Your task to perform on an android device: see tabs open on other devices in the chrome app Image 0: 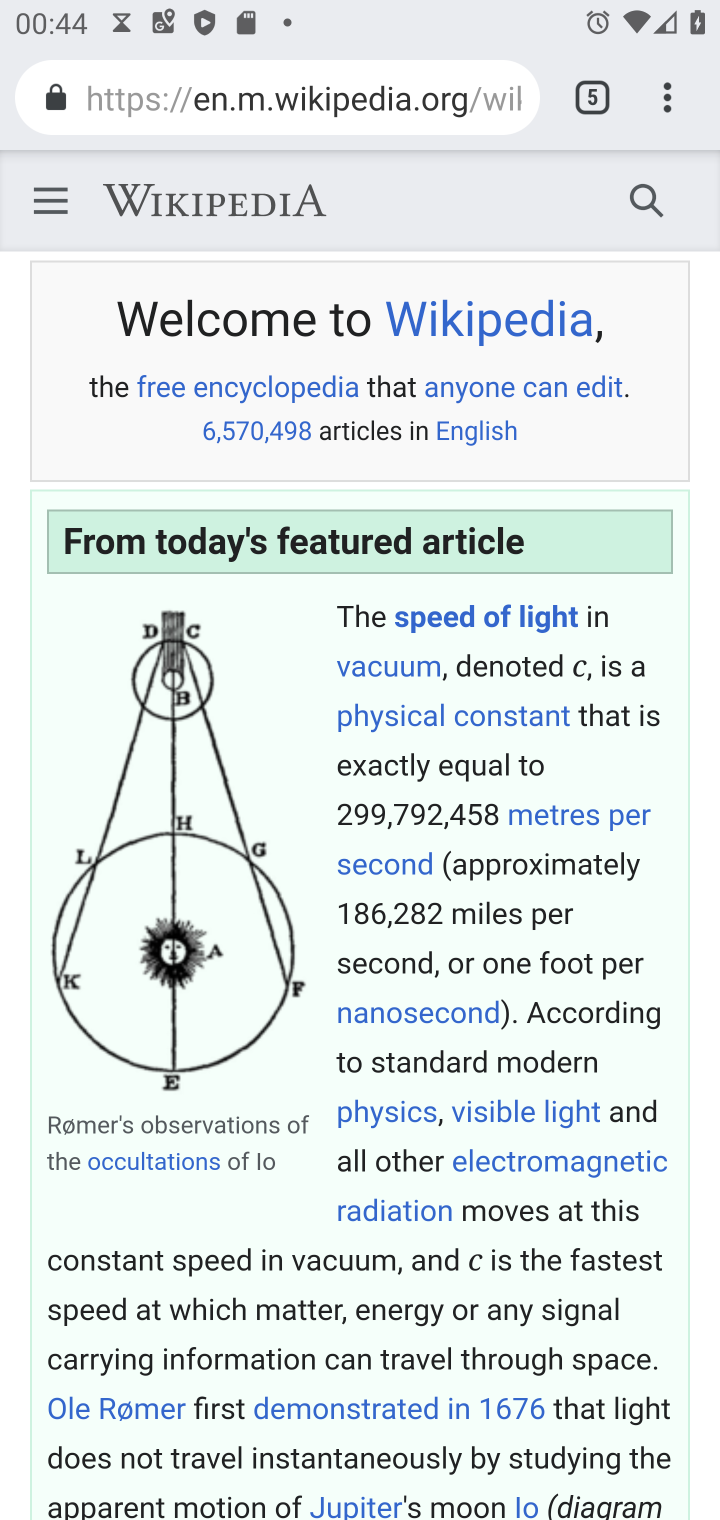
Step 0: press home button
Your task to perform on an android device: see tabs open on other devices in the chrome app Image 1: 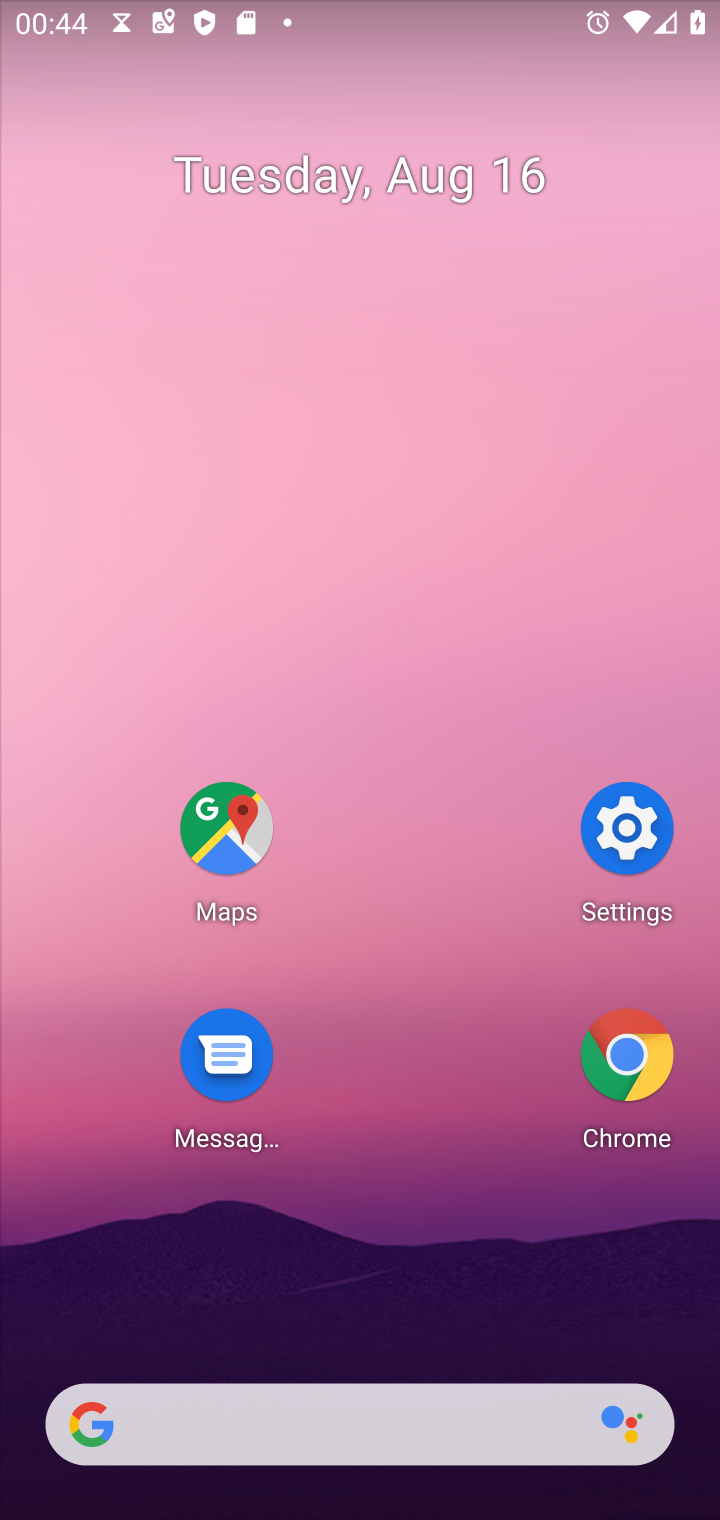
Step 1: click (626, 1046)
Your task to perform on an android device: see tabs open on other devices in the chrome app Image 2: 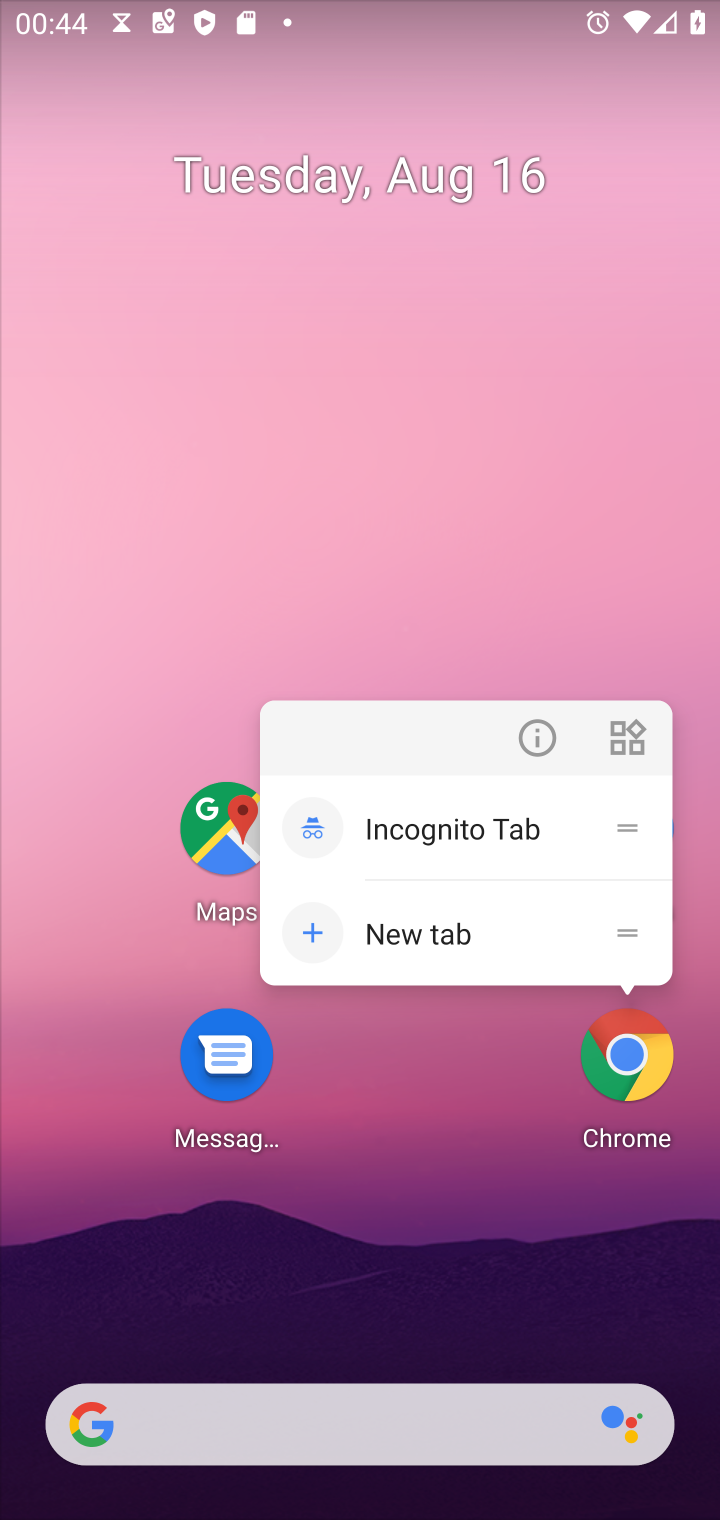
Step 2: click (626, 1046)
Your task to perform on an android device: see tabs open on other devices in the chrome app Image 3: 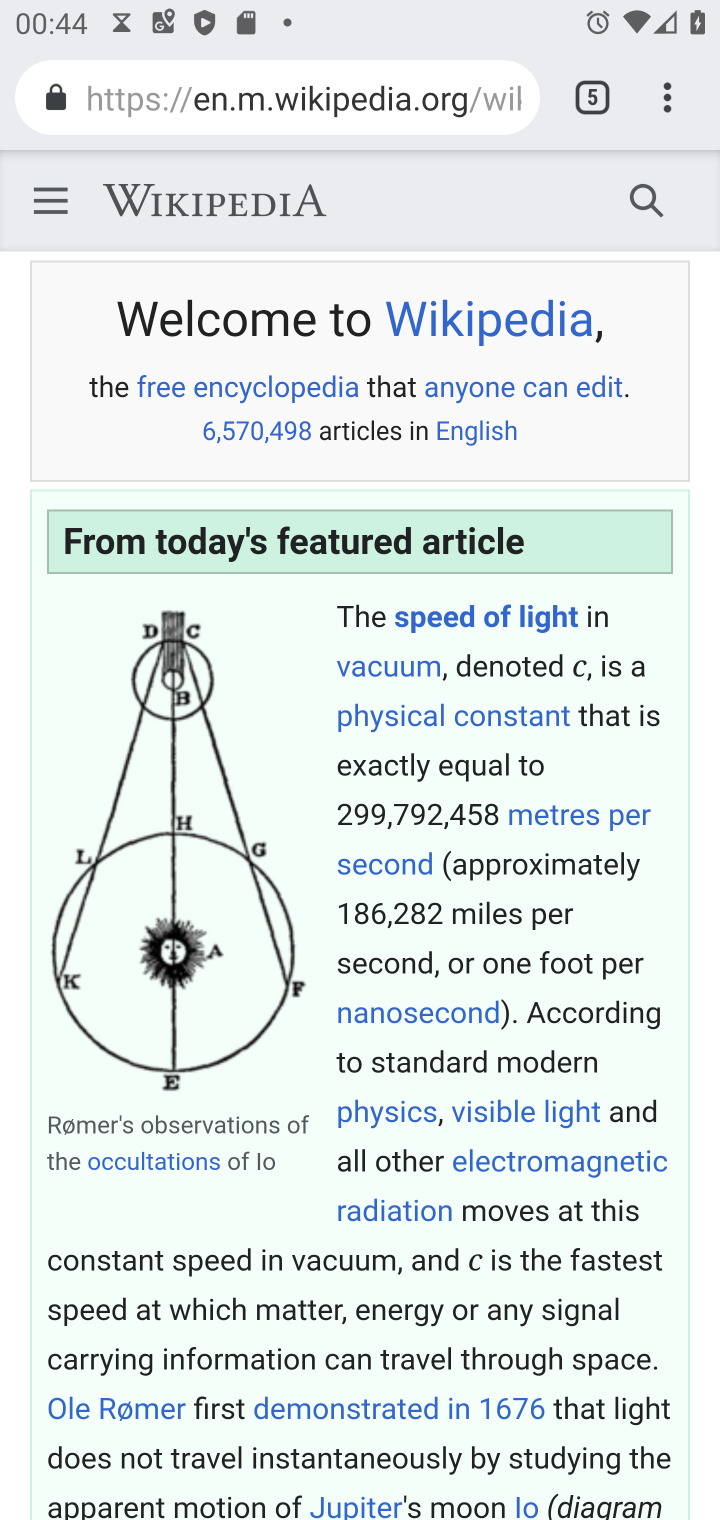
Step 3: task complete